Your task to perform on an android device: change the upload size in google photos Image 0: 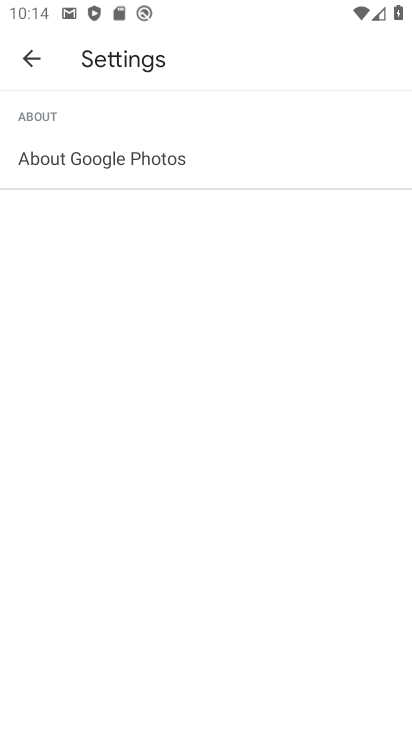
Step 0: press back button
Your task to perform on an android device: change the upload size in google photos Image 1: 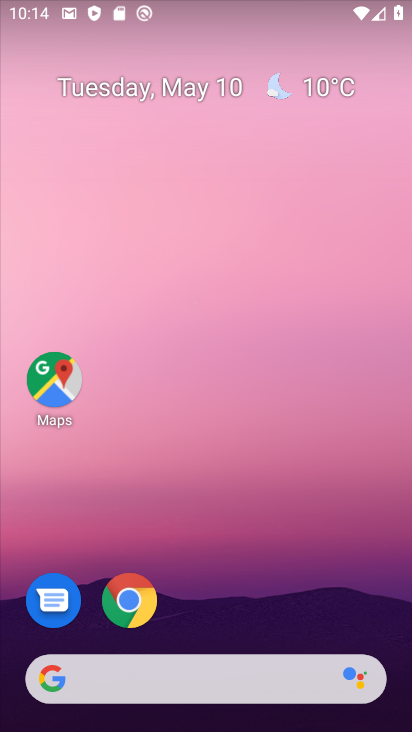
Step 1: drag from (214, 559) to (215, 27)
Your task to perform on an android device: change the upload size in google photos Image 2: 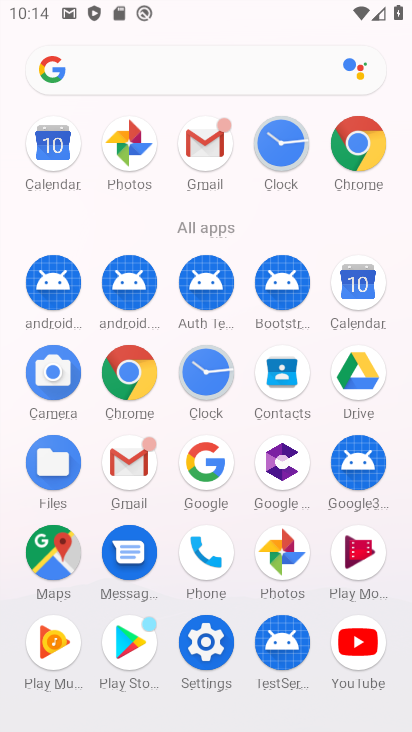
Step 2: click (280, 537)
Your task to perform on an android device: change the upload size in google photos Image 3: 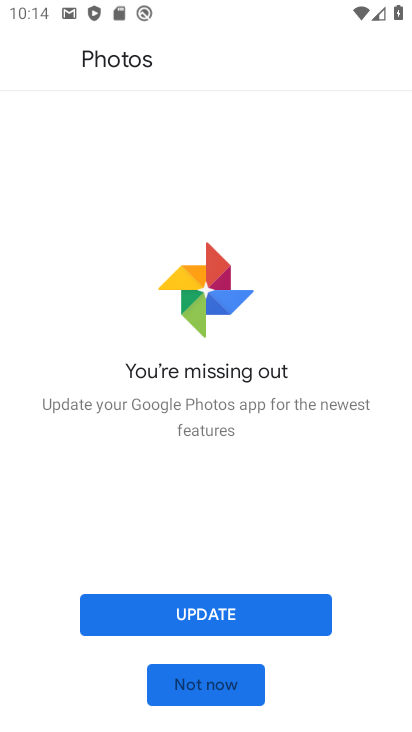
Step 3: click (219, 687)
Your task to perform on an android device: change the upload size in google photos Image 4: 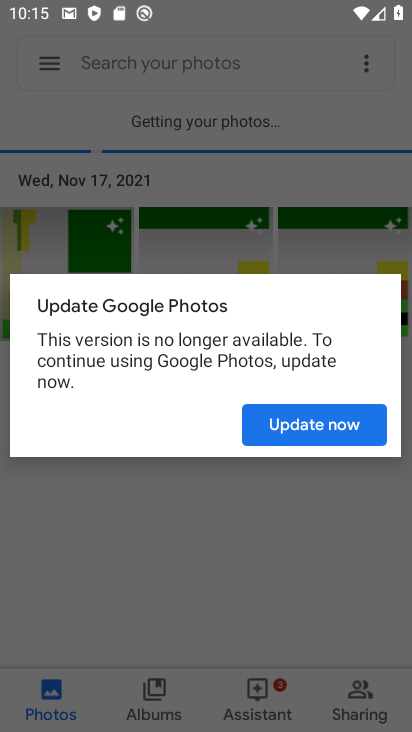
Step 4: click (317, 425)
Your task to perform on an android device: change the upload size in google photos Image 5: 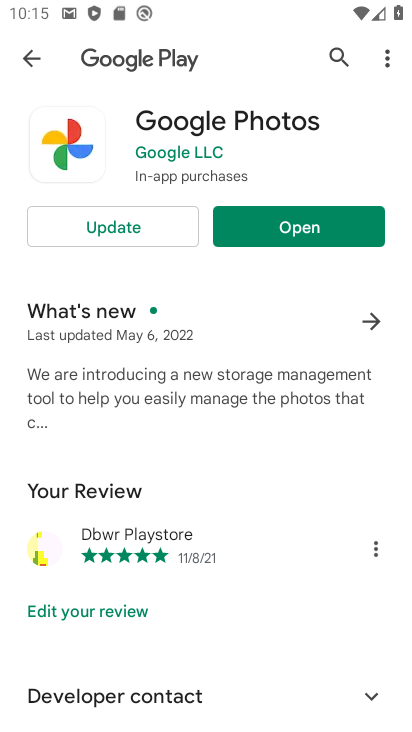
Step 5: click (124, 219)
Your task to perform on an android device: change the upload size in google photos Image 6: 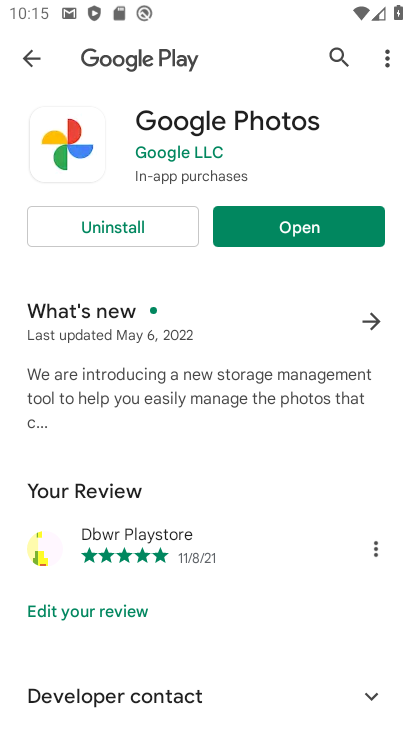
Step 6: click (270, 233)
Your task to perform on an android device: change the upload size in google photos Image 7: 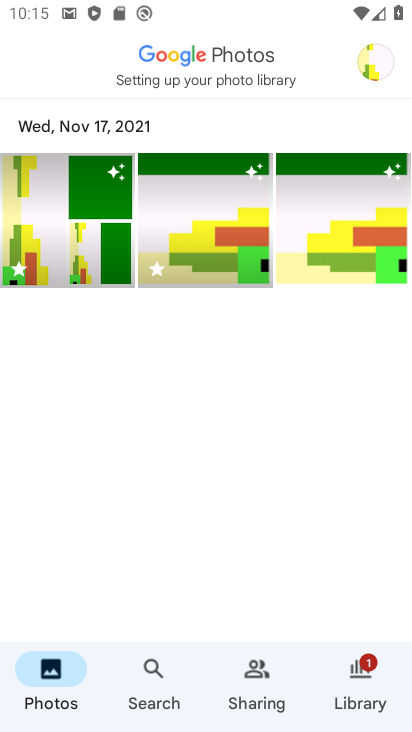
Step 7: click (365, 61)
Your task to perform on an android device: change the upload size in google photos Image 8: 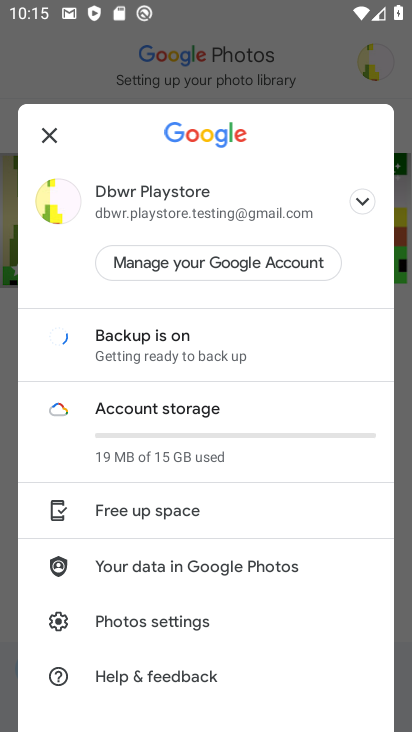
Step 8: click (152, 615)
Your task to perform on an android device: change the upload size in google photos Image 9: 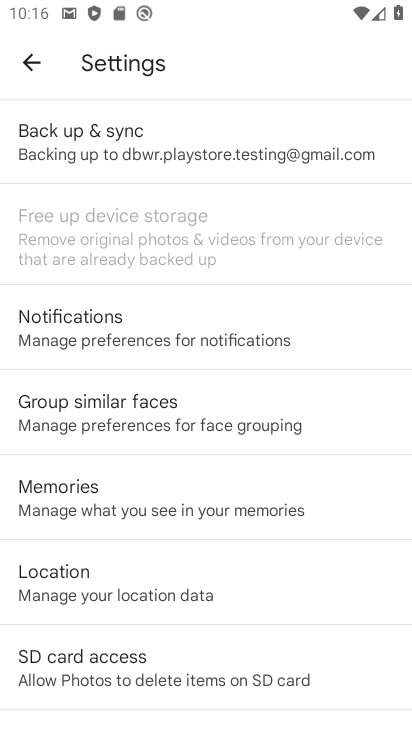
Step 9: click (155, 136)
Your task to perform on an android device: change the upload size in google photos Image 10: 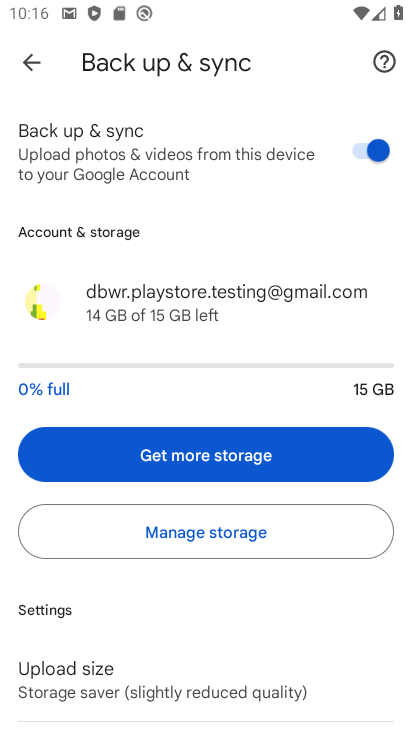
Step 10: drag from (171, 620) to (212, 147)
Your task to perform on an android device: change the upload size in google photos Image 11: 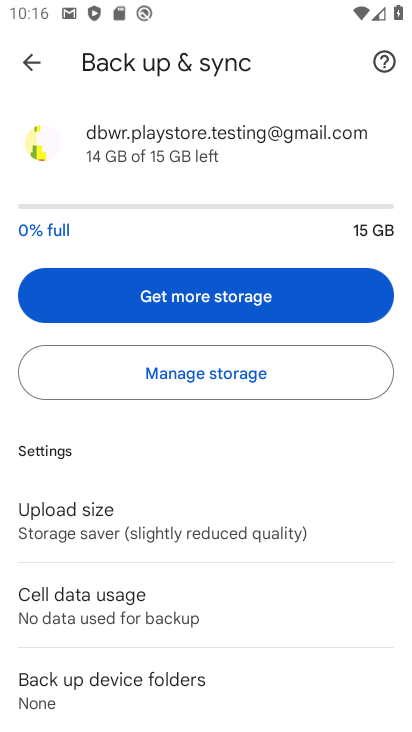
Step 11: click (161, 515)
Your task to perform on an android device: change the upload size in google photos Image 12: 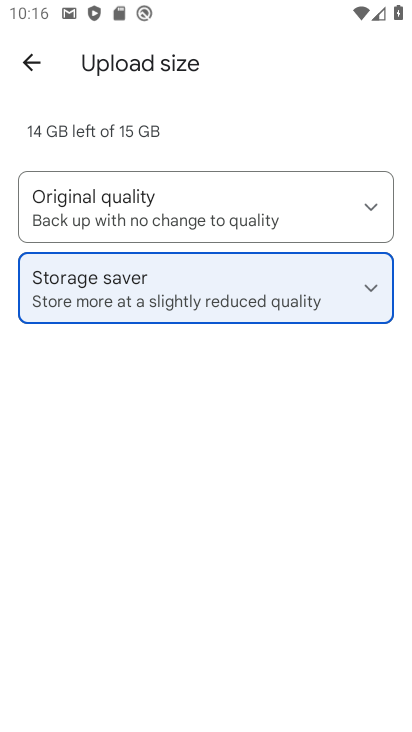
Step 12: click (142, 194)
Your task to perform on an android device: change the upload size in google photos Image 13: 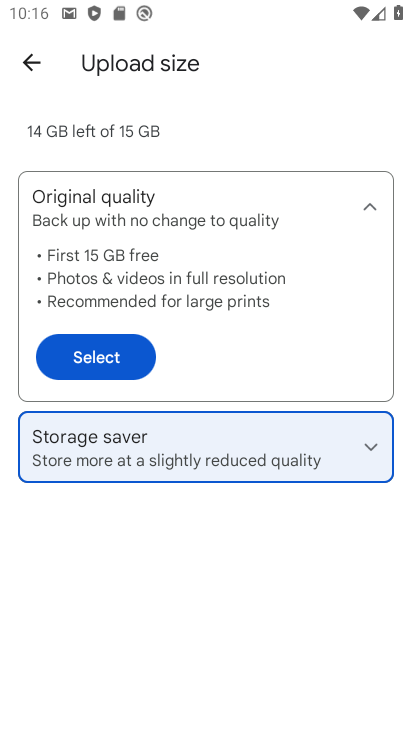
Step 13: click (112, 347)
Your task to perform on an android device: change the upload size in google photos Image 14: 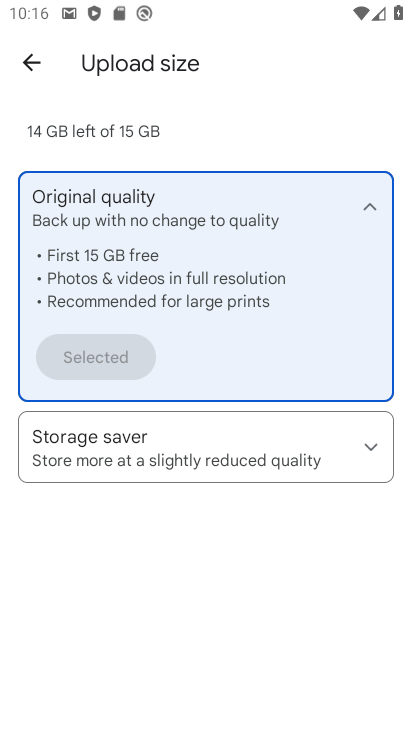
Step 14: task complete